Your task to perform on an android device: Go to Yahoo.com Image 0: 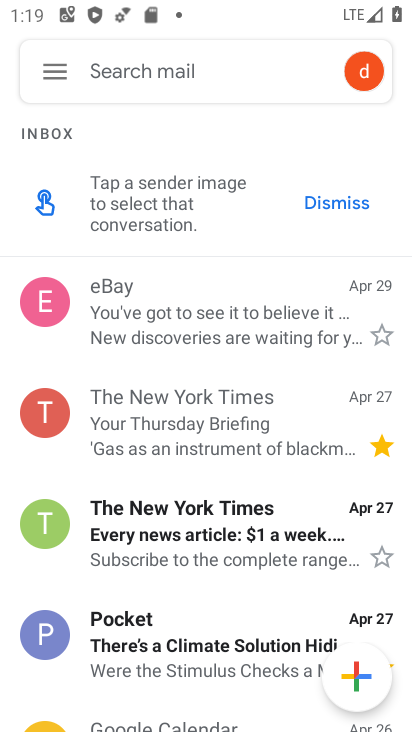
Step 0: press home button
Your task to perform on an android device: Go to Yahoo.com Image 1: 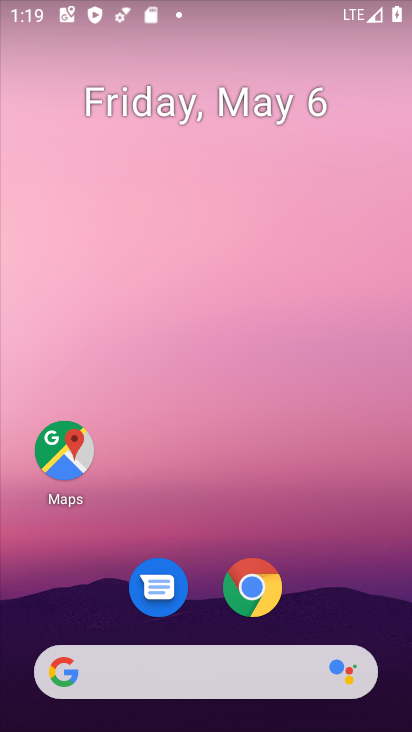
Step 1: drag from (329, 563) to (335, 123)
Your task to perform on an android device: Go to Yahoo.com Image 2: 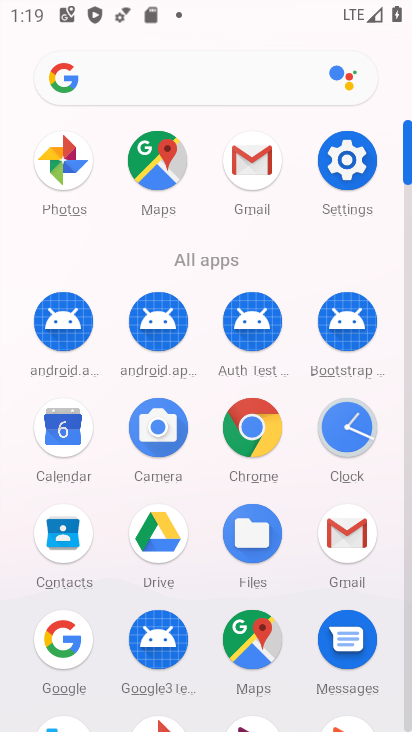
Step 2: click (259, 448)
Your task to perform on an android device: Go to Yahoo.com Image 3: 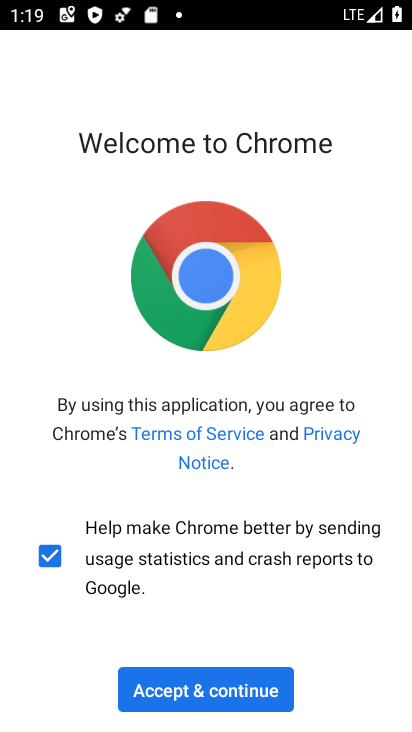
Step 3: click (219, 686)
Your task to perform on an android device: Go to Yahoo.com Image 4: 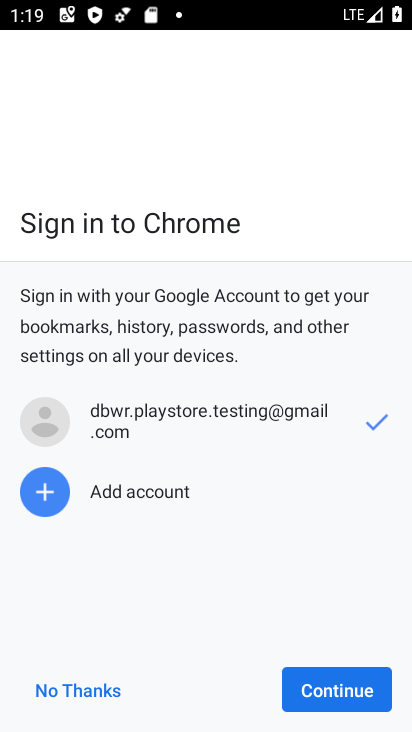
Step 4: click (341, 694)
Your task to perform on an android device: Go to Yahoo.com Image 5: 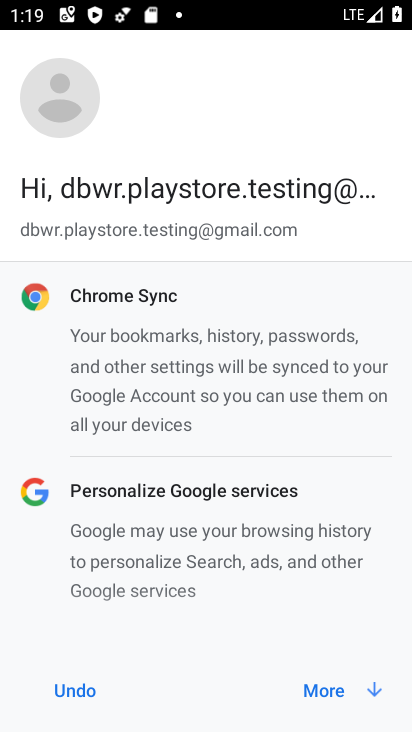
Step 5: click (337, 688)
Your task to perform on an android device: Go to Yahoo.com Image 6: 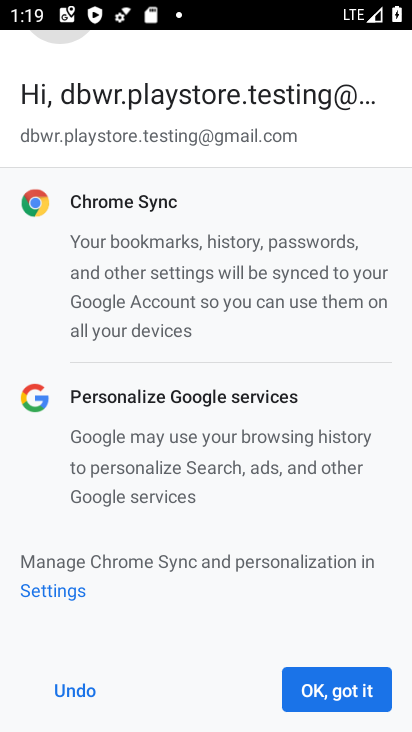
Step 6: click (334, 684)
Your task to perform on an android device: Go to Yahoo.com Image 7: 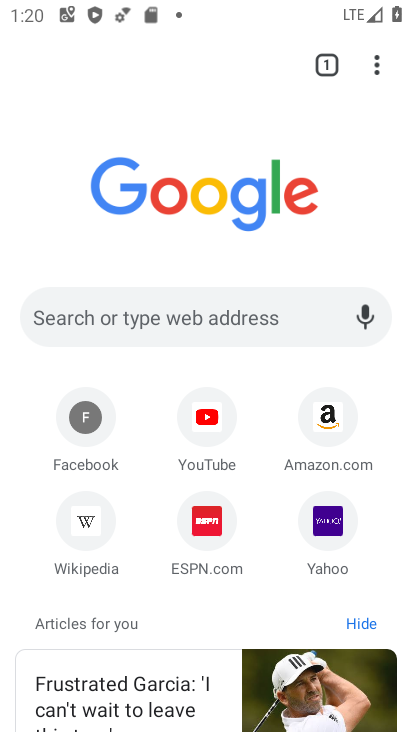
Step 7: click (211, 317)
Your task to perform on an android device: Go to Yahoo.com Image 8: 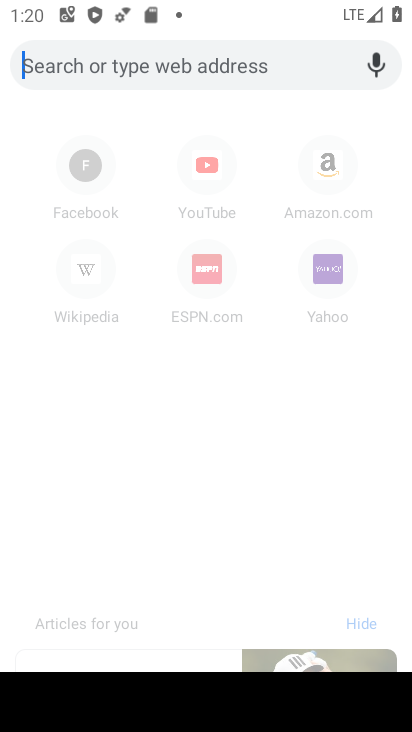
Step 8: click (174, 63)
Your task to perform on an android device: Go to Yahoo.com Image 9: 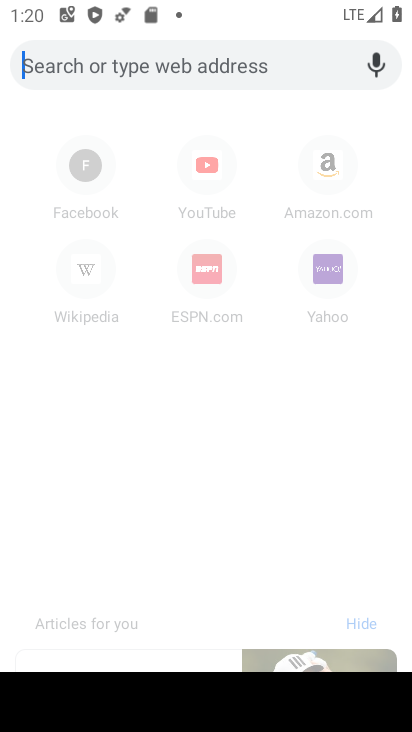
Step 9: type "yahoo.com"
Your task to perform on an android device: Go to Yahoo.com Image 10: 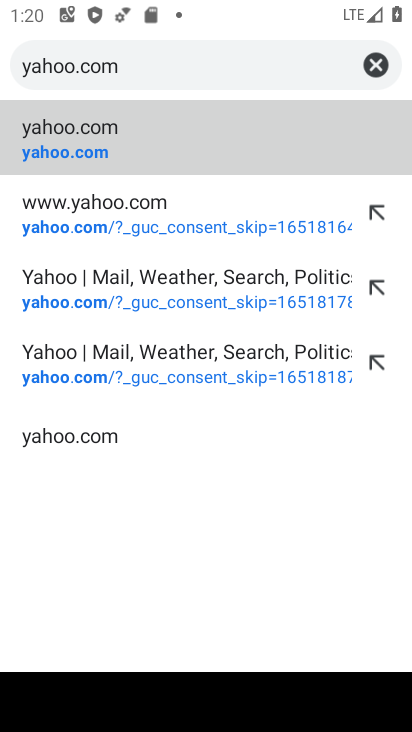
Step 10: click (61, 151)
Your task to perform on an android device: Go to Yahoo.com Image 11: 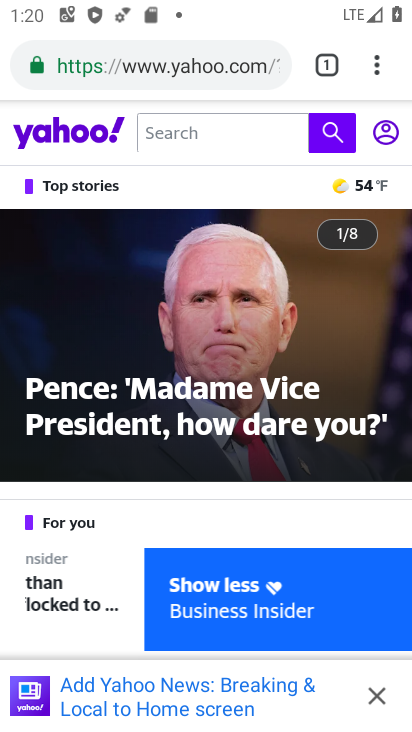
Step 11: task complete